Your task to perform on an android device: change alarm snooze length Image 0: 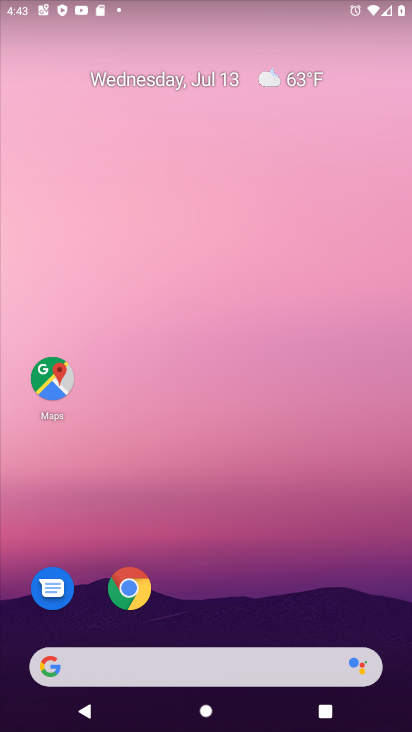
Step 0: drag from (224, 674) to (215, 60)
Your task to perform on an android device: change alarm snooze length Image 1: 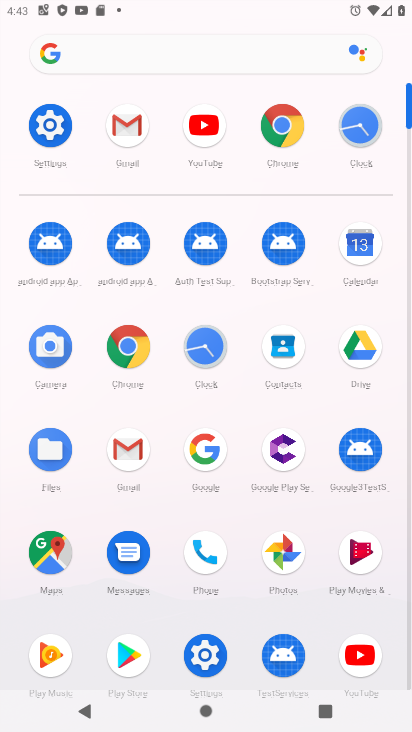
Step 1: click (205, 349)
Your task to perform on an android device: change alarm snooze length Image 2: 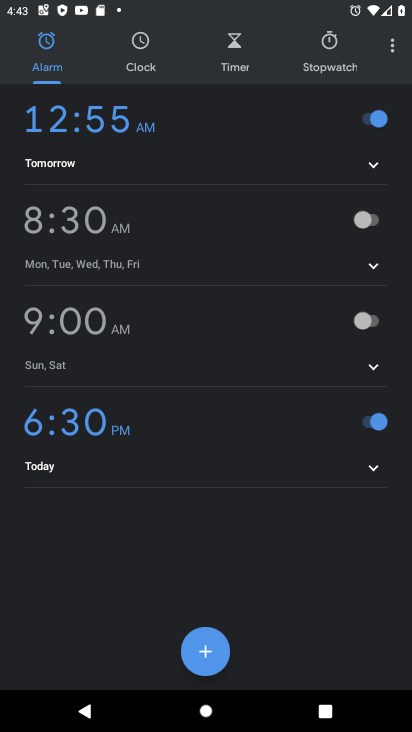
Step 2: click (392, 43)
Your task to perform on an android device: change alarm snooze length Image 3: 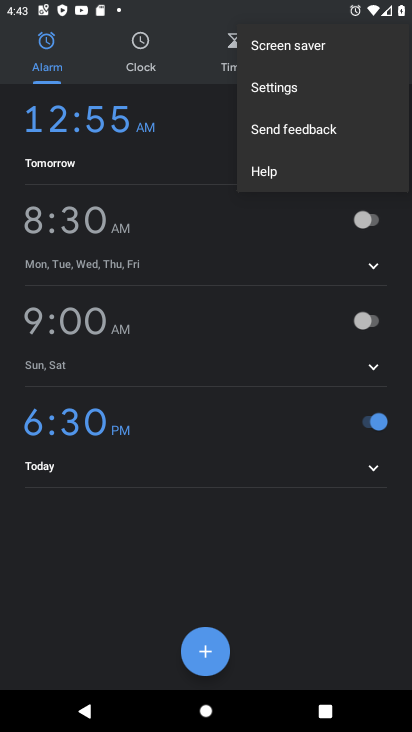
Step 3: click (293, 87)
Your task to perform on an android device: change alarm snooze length Image 4: 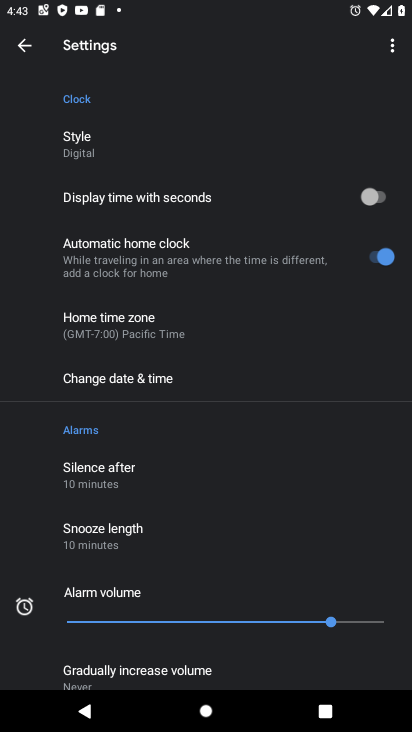
Step 4: click (97, 537)
Your task to perform on an android device: change alarm snooze length Image 5: 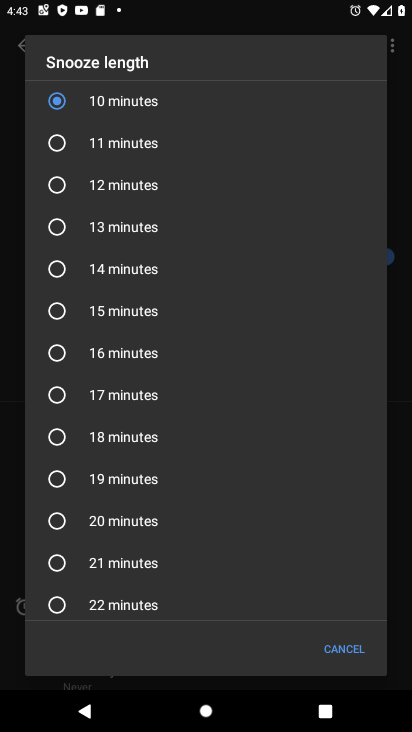
Step 5: drag from (118, 489) to (174, 310)
Your task to perform on an android device: change alarm snooze length Image 6: 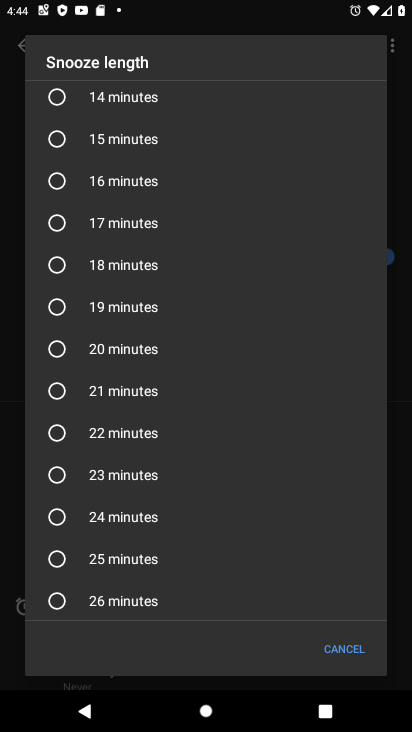
Step 6: click (64, 432)
Your task to perform on an android device: change alarm snooze length Image 7: 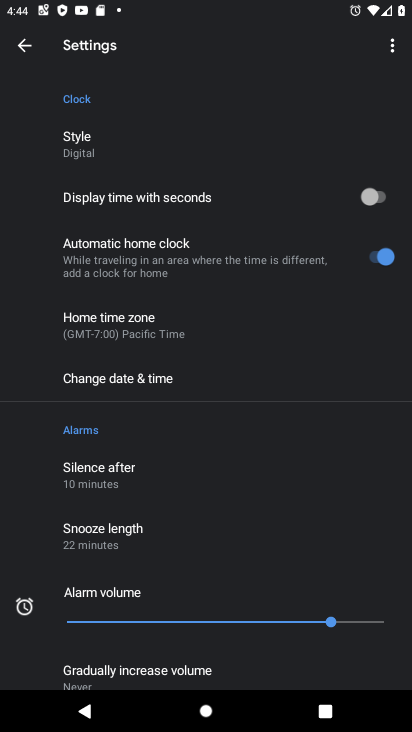
Step 7: task complete